Your task to perform on an android device: snooze an email in the gmail app Image 0: 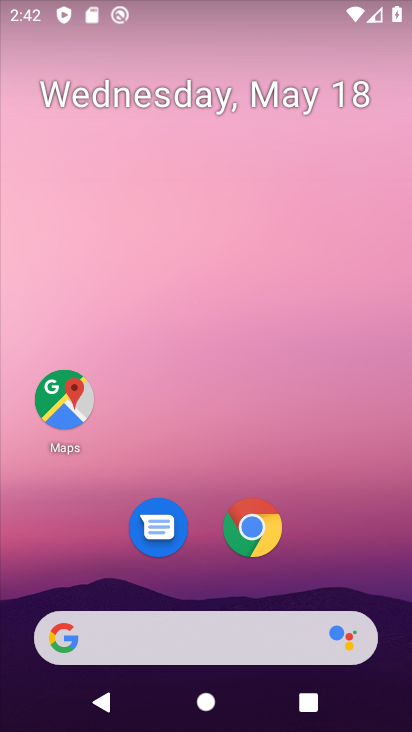
Step 0: drag from (196, 608) to (118, 81)
Your task to perform on an android device: snooze an email in the gmail app Image 1: 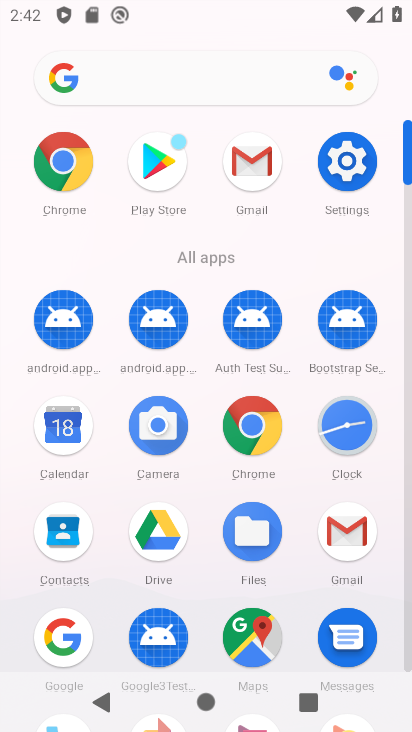
Step 1: click (348, 545)
Your task to perform on an android device: snooze an email in the gmail app Image 2: 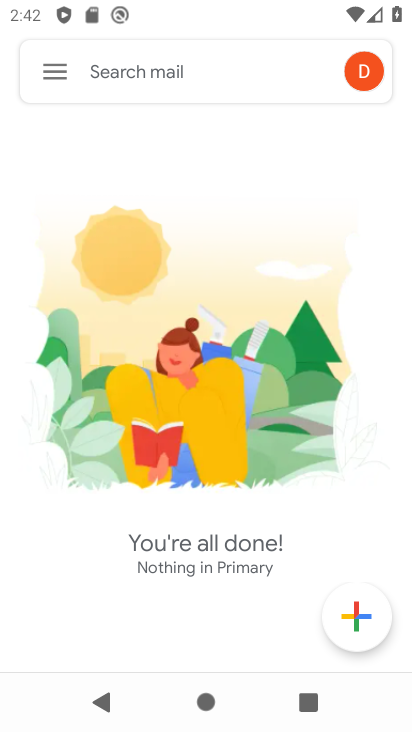
Step 2: click (47, 80)
Your task to perform on an android device: snooze an email in the gmail app Image 3: 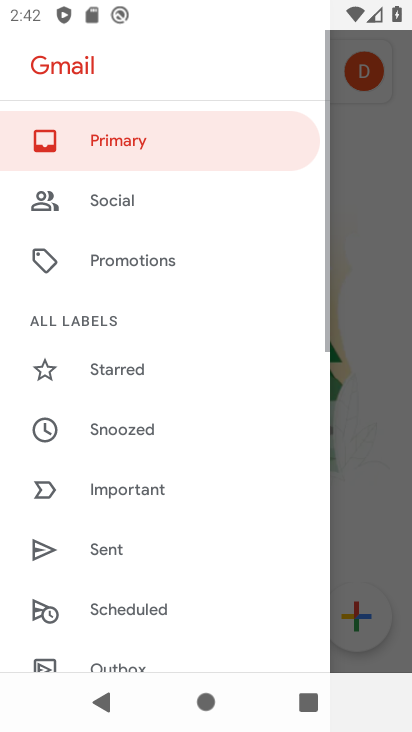
Step 3: drag from (124, 525) to (85, 255)
Your task to perform on an android device: snooze an email in the gmail app Image 4: 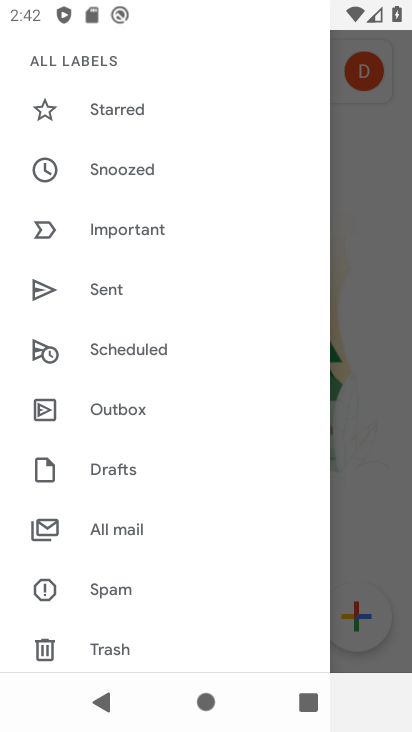
Step 4: drag from (127, 594) to (91, 310)
Your task to perform on an android device: snooze an email in the gmail app Image 5: 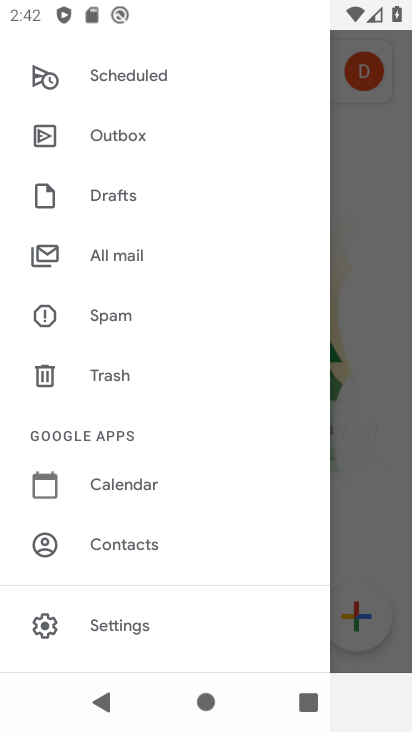
Step 5: click (118, 242)
Your task to perform on an android device: snooze an email in the gmail app Image 6: 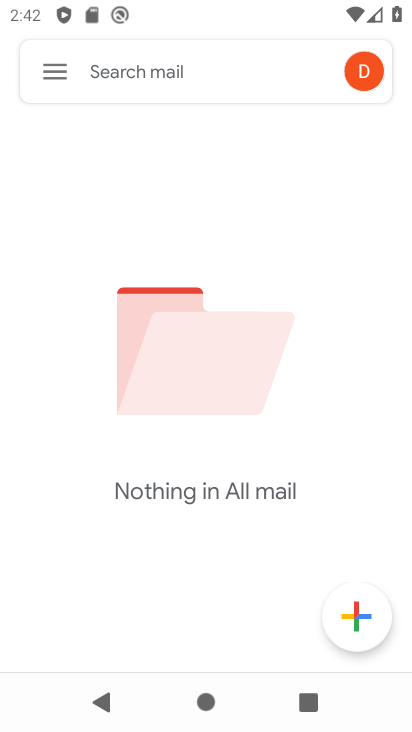
Step 6: drag from (180, 221) to (186, 540)
Your task to perform on an android device: snooze an email in the gmail app Image 7: 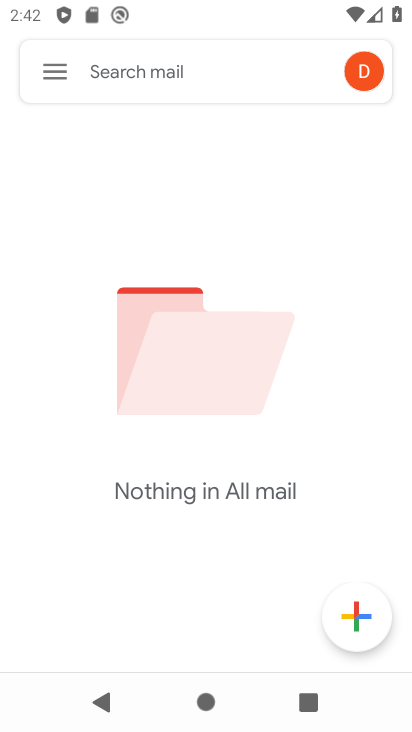
Step 7: click (48, 67)
Your task to perform on an android device: snooze an email in the gmail app Image 8: 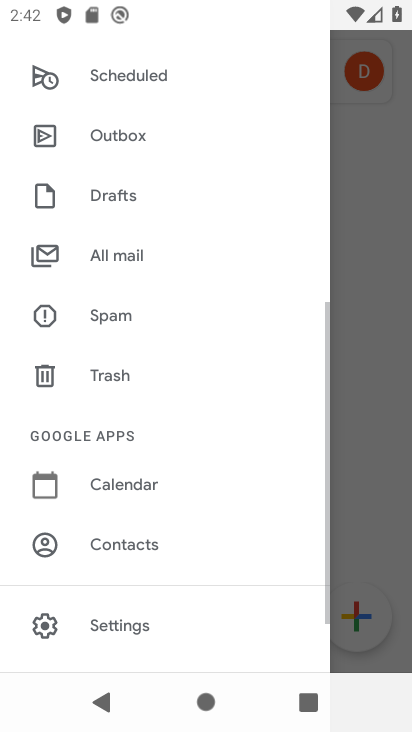
Step 8: drag from (123, 151) to (123, 584)
Your task to perform on an android device: snooze an email in the gmail app Image 9: 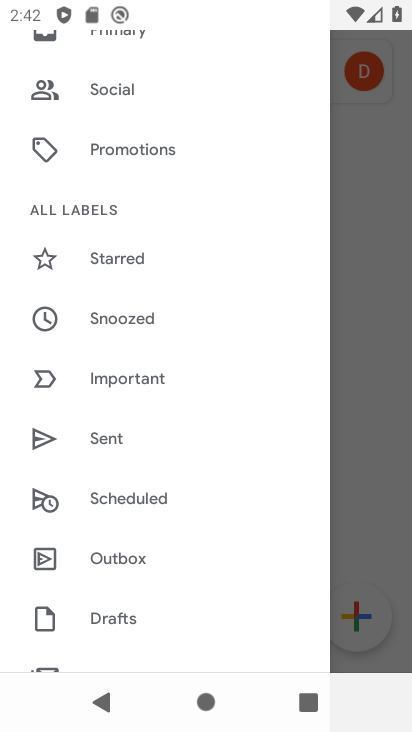
Step 9: click (121, 317)
Your task to perform on an android device: snooze an email in the gmail app Image 10: 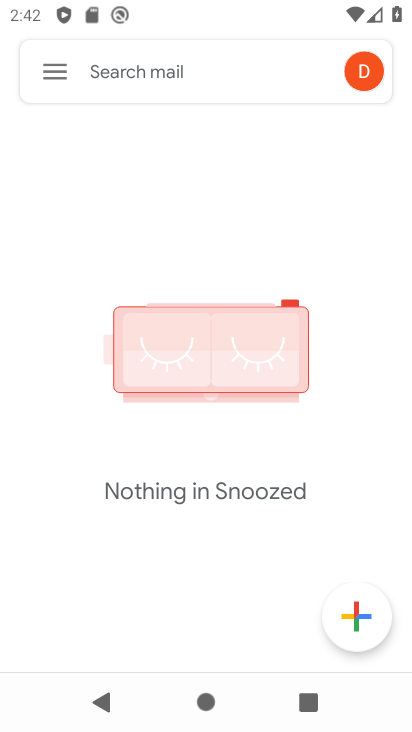
Step 10: task complete